Your task to perform on an android device: What's the news this morning? Image 0: 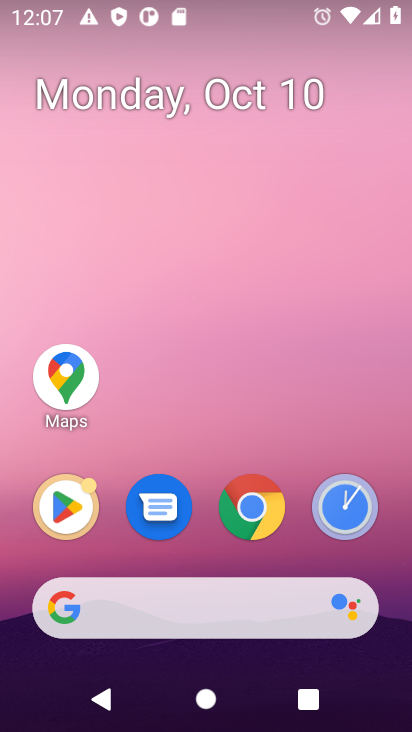
Step 0: click (242, 604)
Your task to perform on an android device: What's the news this morning? Image 1: 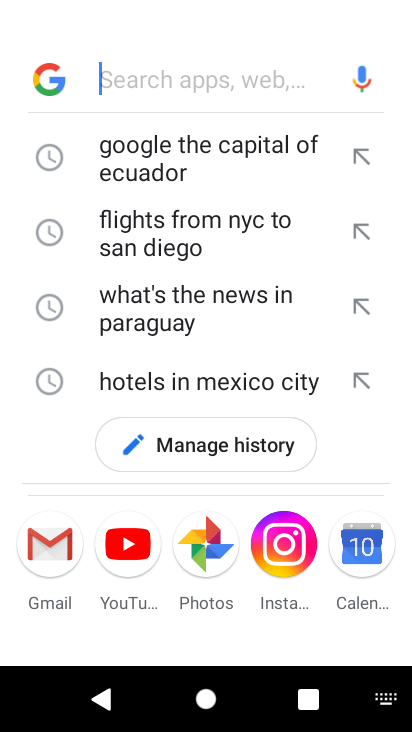
Step 1: type "What's the news this morning"
Your task to perform on an android device: What's the news this morning? Image 2: 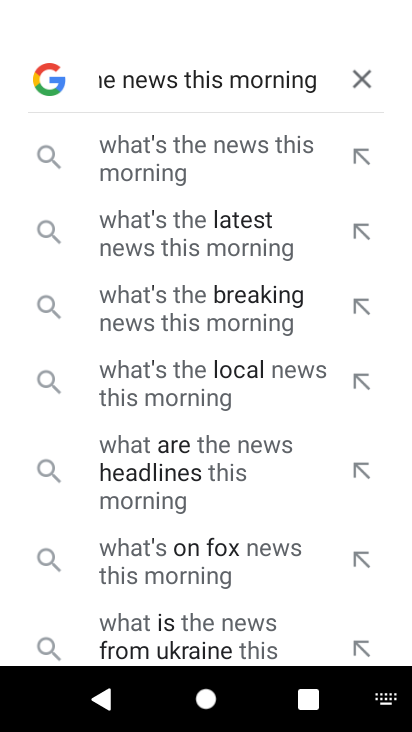
Step 2: press enter
Your task to perform on an android device: What's the news this morning? Image 3: 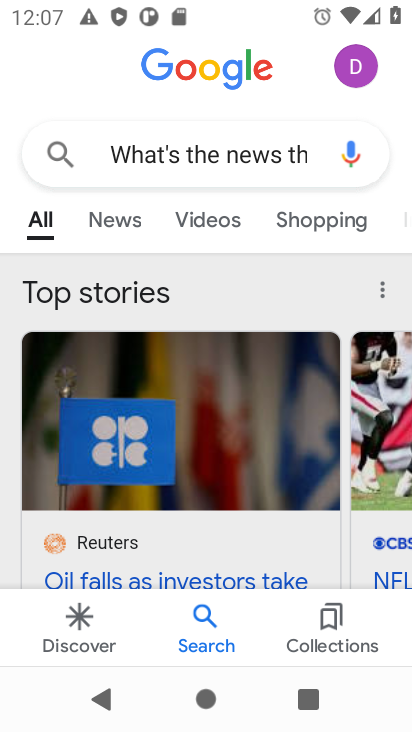
Step 3: drag from (253, 551) to (277, 351)
Your task to perform on an android device: What's the news this morning? Image 4: 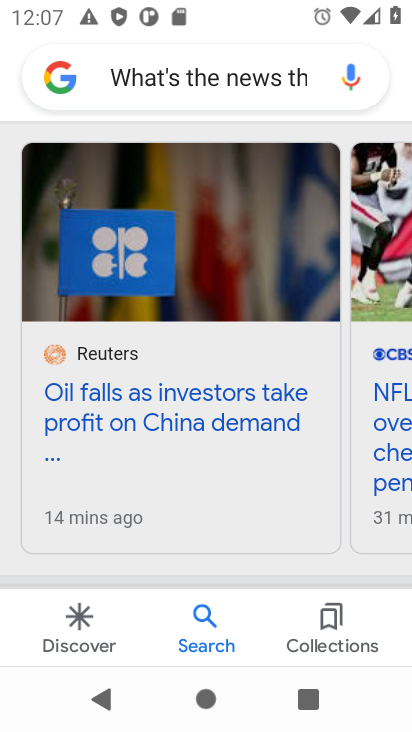
Step 4: drag from (256, 517) to (258, 210)
Your task to perform on an android device: What's the news this morning? Image 5: 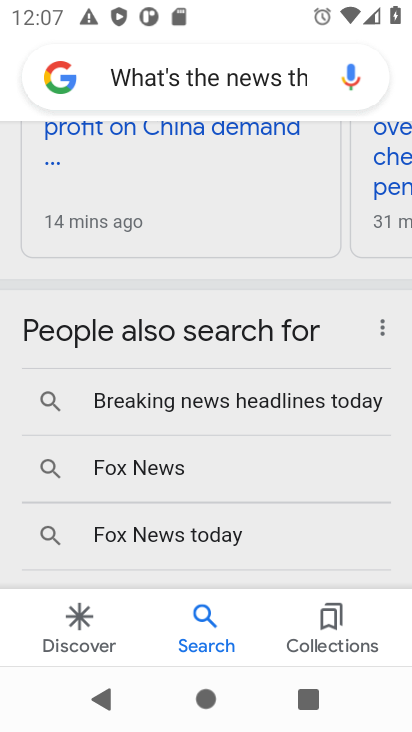
Step 5: drag from (236, 493) to (259, 171)
Your task to perform on an android device: What's the news this morning? Image 6: 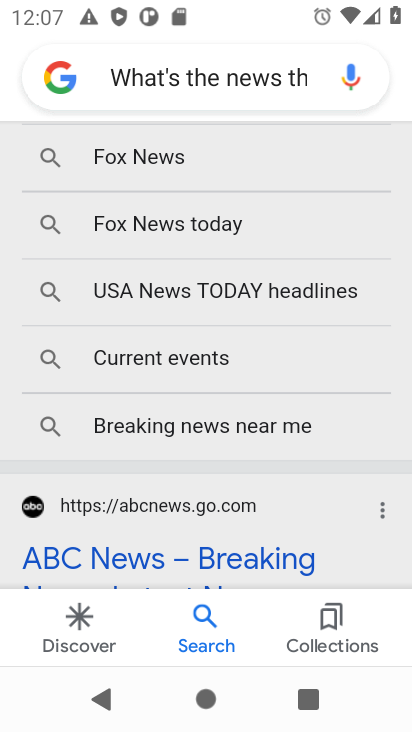
Step 6: drag from (268, 477) to (295, 228)
Your task to perform on an android device: What's the news this morning? Image 7: 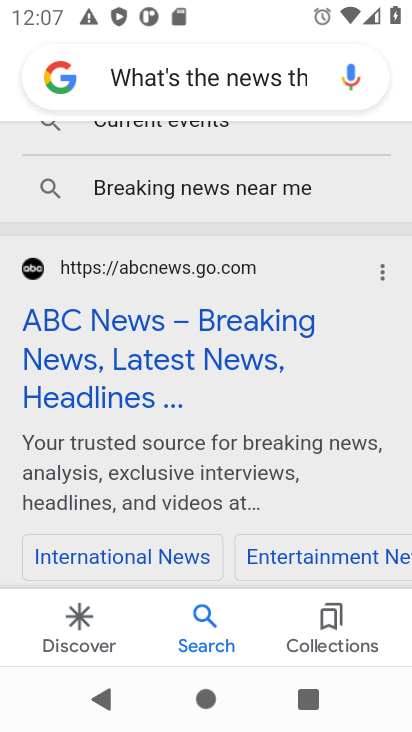
Step 7: click (236, 351)
Your task to perform on an android device: What's the news this morning? Image 8: 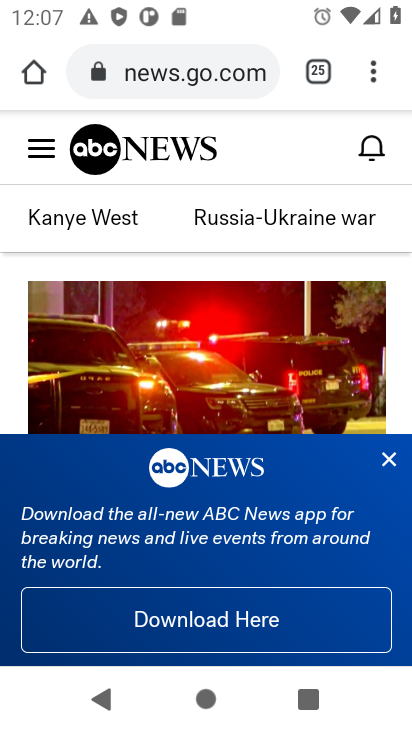
Step 8: click (389, 460)
Your task to perform on an android device: What's the news this morning? Image 9: 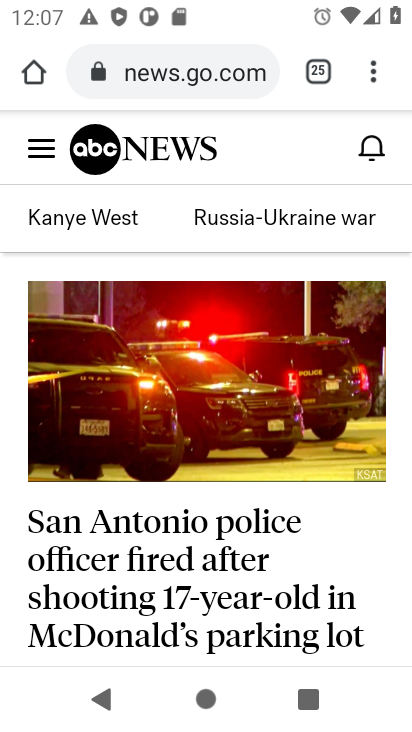
Step 9: task complete